Your task to perform on an android device: Open Amazon Image 0: 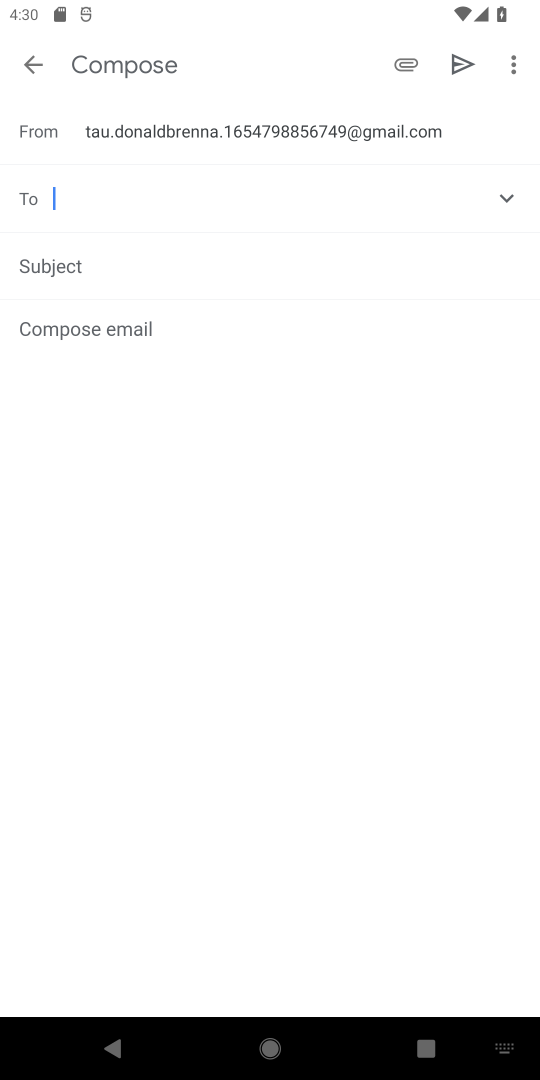
Step 0: press home button
Your task to perform on an android device: Open Amazon Image 1: 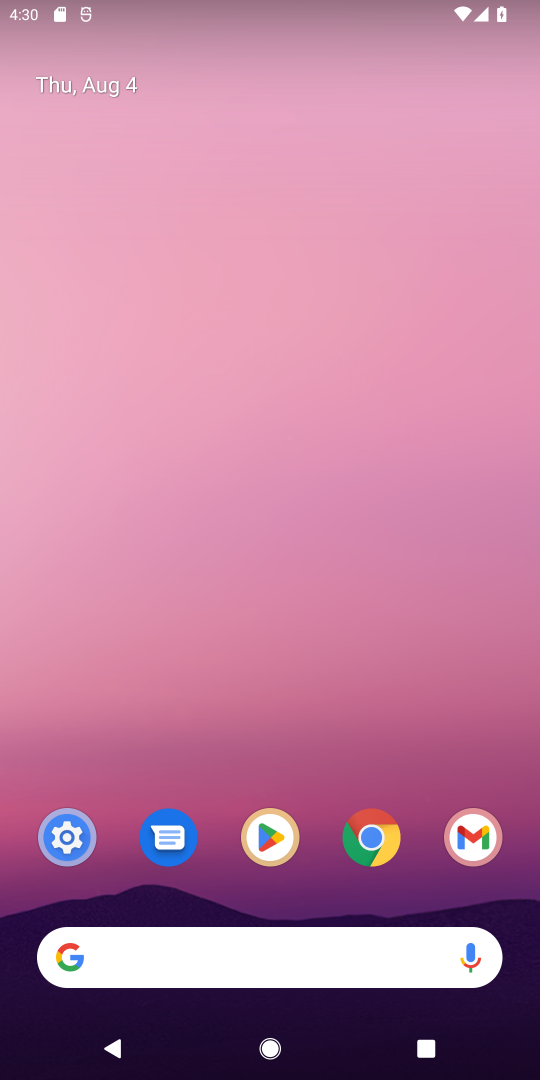
Step 1: click (374, 821)
Your task to perform on an android device: Open Amazon Image 2: 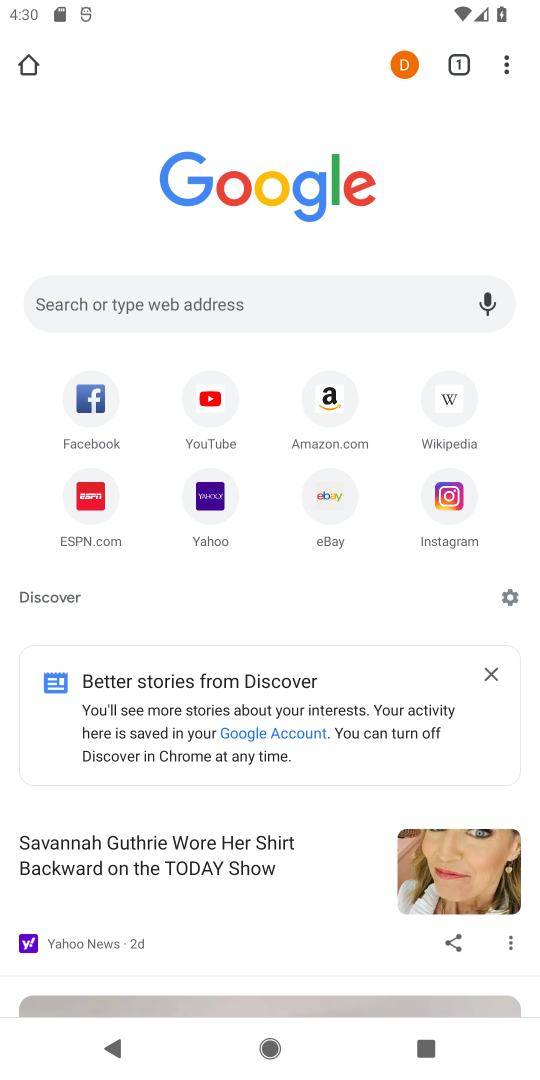
Step 2: click (332, 413)
Your task to perform on an android device: Open Amazon Image 3: 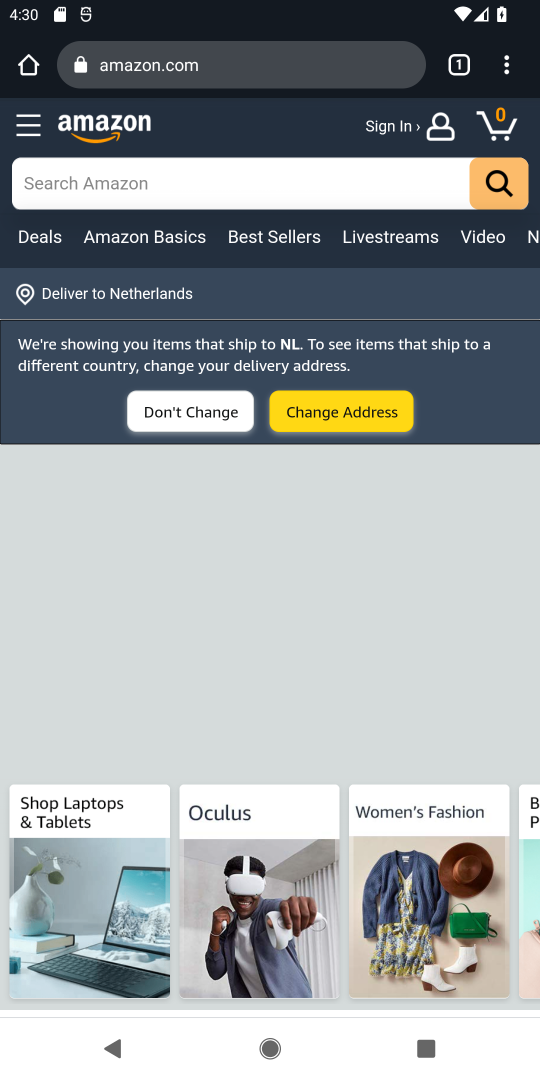
Step 3: task complete